Your task to perform on an android device: Search for Italian restaurants on Maps Image 0: 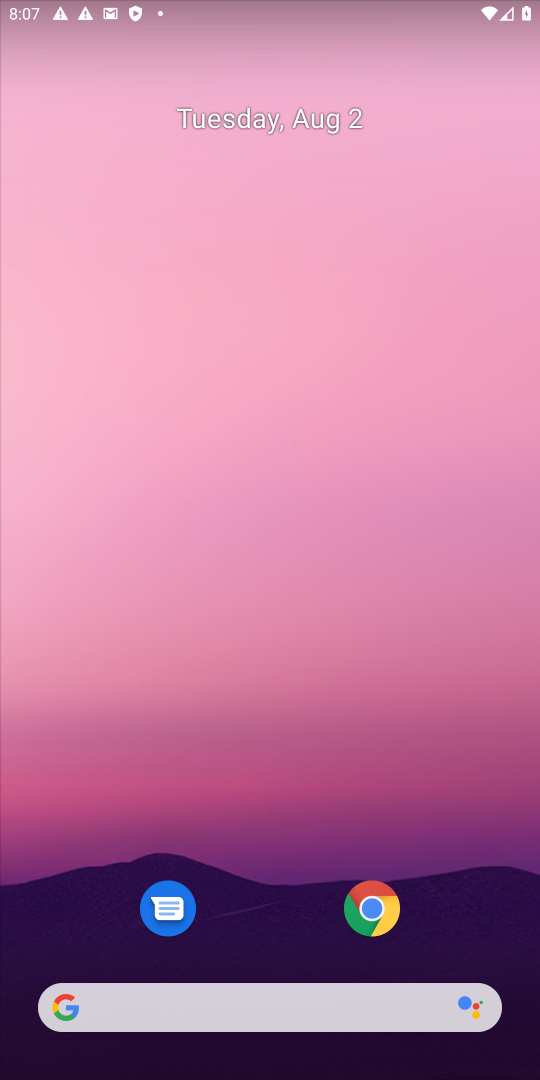
Step 0: drag from (83, 1060) to (63, 48)
Your task to perform on an android device: Search for Italian restaurants on Maps Image 1: 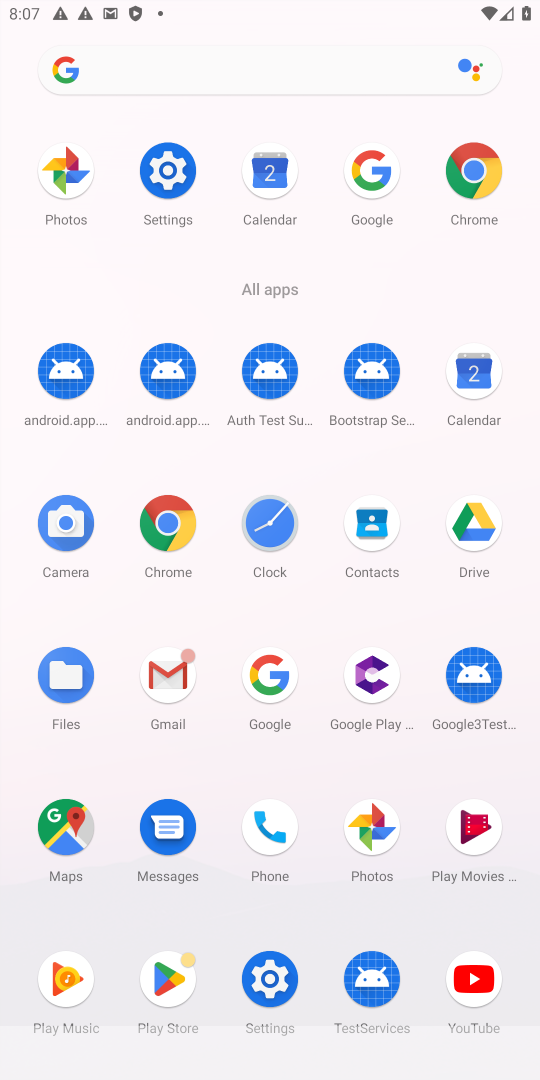
Step 1: click (51, 831)
Your task to perform on an android device: Search for Italian restaurants on Maps Image 2: 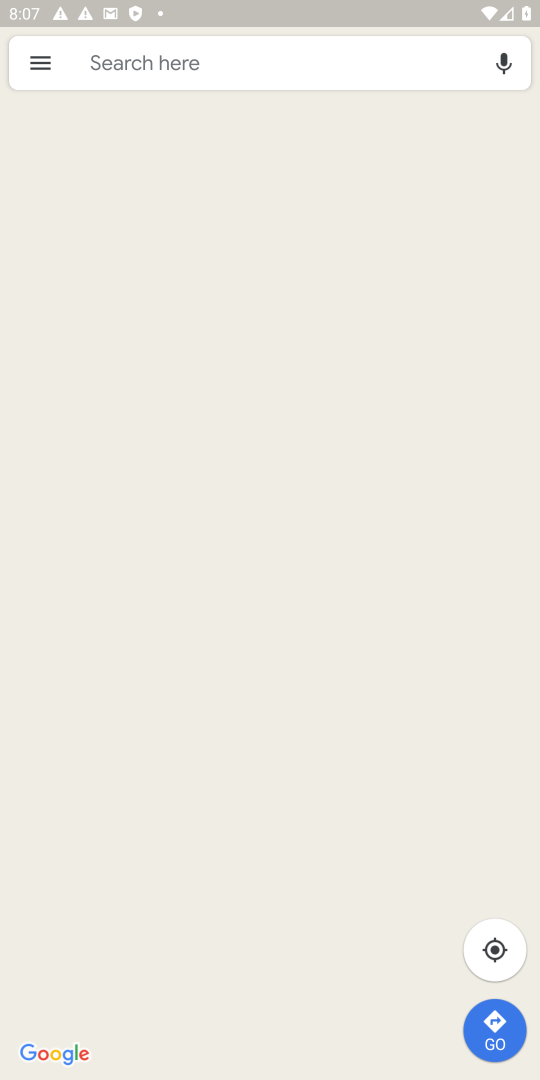
Step 2: click (305, 62)
Your task to perform on an android device: Search for Italian restaurants on Maps Image 3: 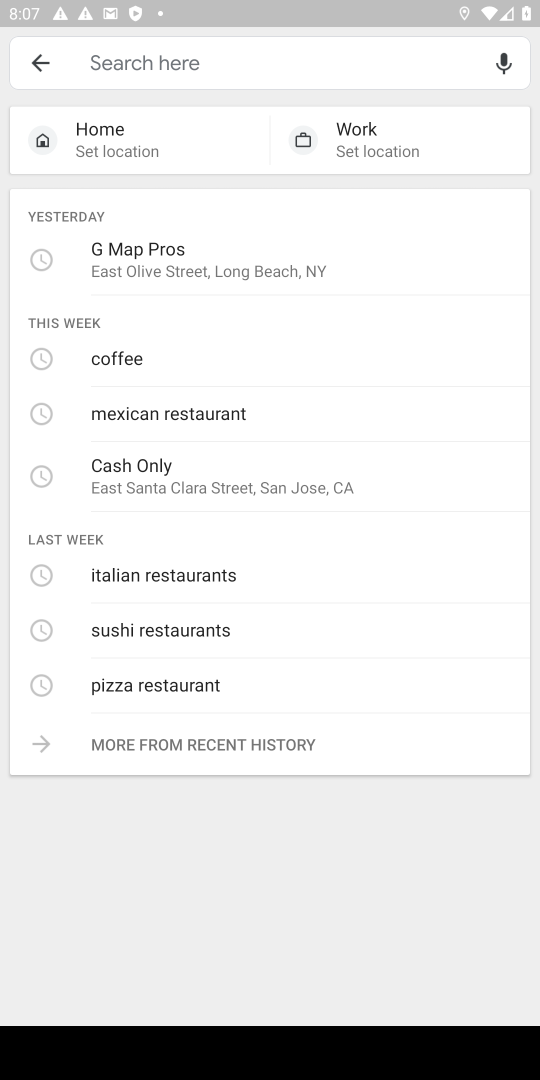
Step 3: click (230, 575)
Your task to perform on an android device: Search for Italian restaurants on Maps Image 4: 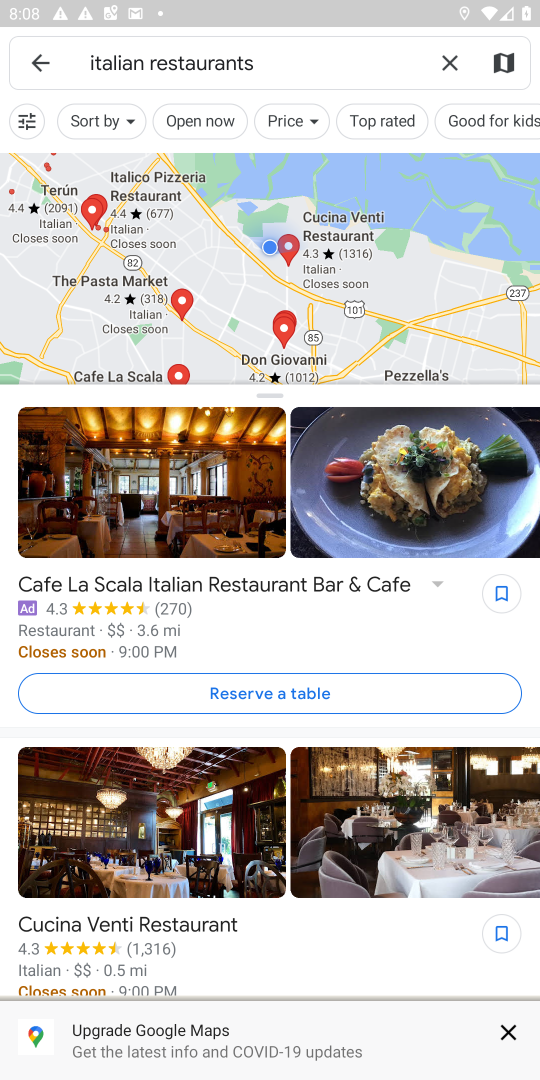
Step 4: task complete